Your task to perform on an android device: Go to battery settings Image 0: 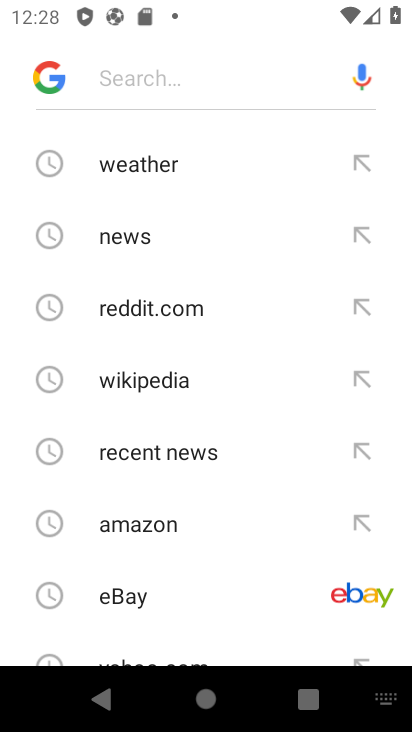
Step 0: press home button
Your task to perform on an android device: Go to battery settings Image 1: 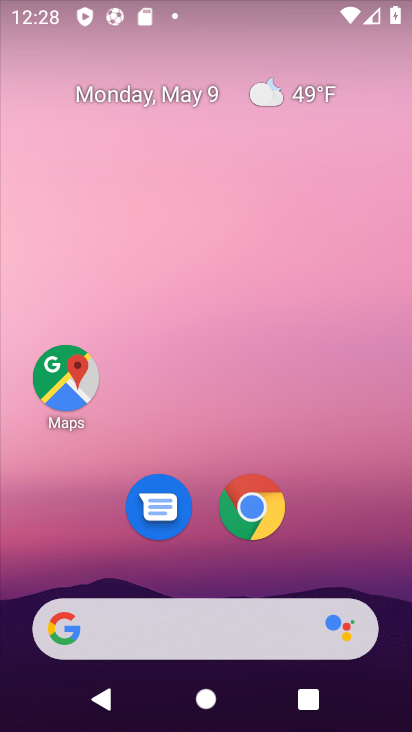
Step 1: drag from (192, 596) to (254, 103)
Your task to perform on an android device: Go to battery settings Image 2: 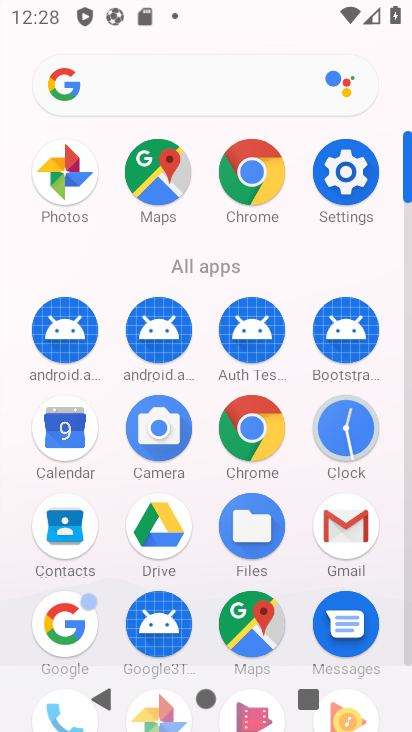
Step 2: click (334, 185)
Your task to perform on an android device: Go to battery settings Image 3: 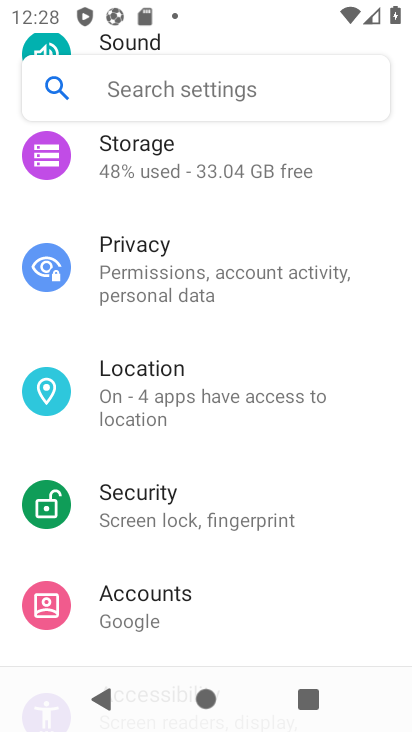
Step 3: drag from (218, 183) to (212, 499)
Your task to perform on an android device: Go to battery settings Image 4: 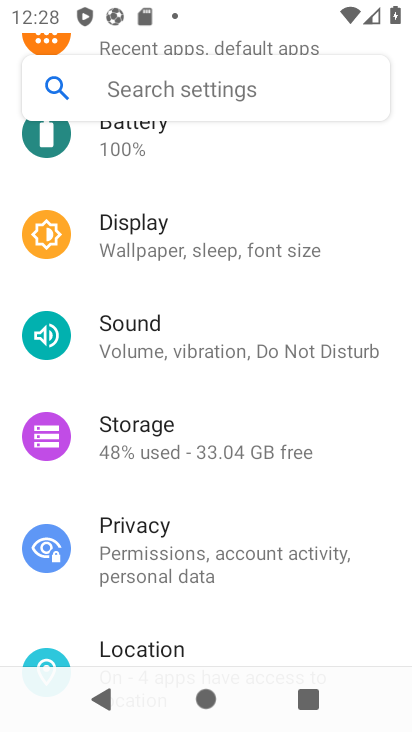
Step 4: drag from (208, 173) to (202, 506)
Your task to perform on an android device: Go to battery settings Image 5: 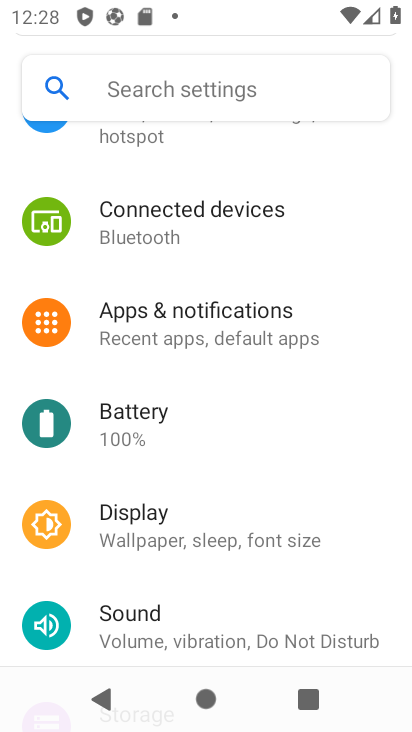
Step 5: click (137, 433)
Your task to perform on an android device: Go to battery settings Image 6: 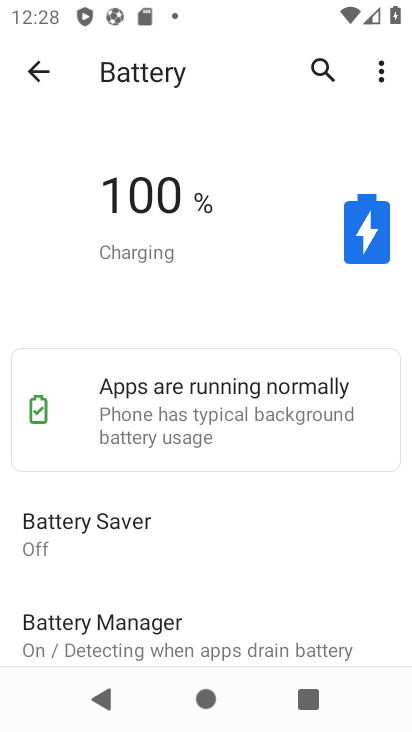
Step 6: task complete